Your task to perform on an android device: turn on location history Image 0: 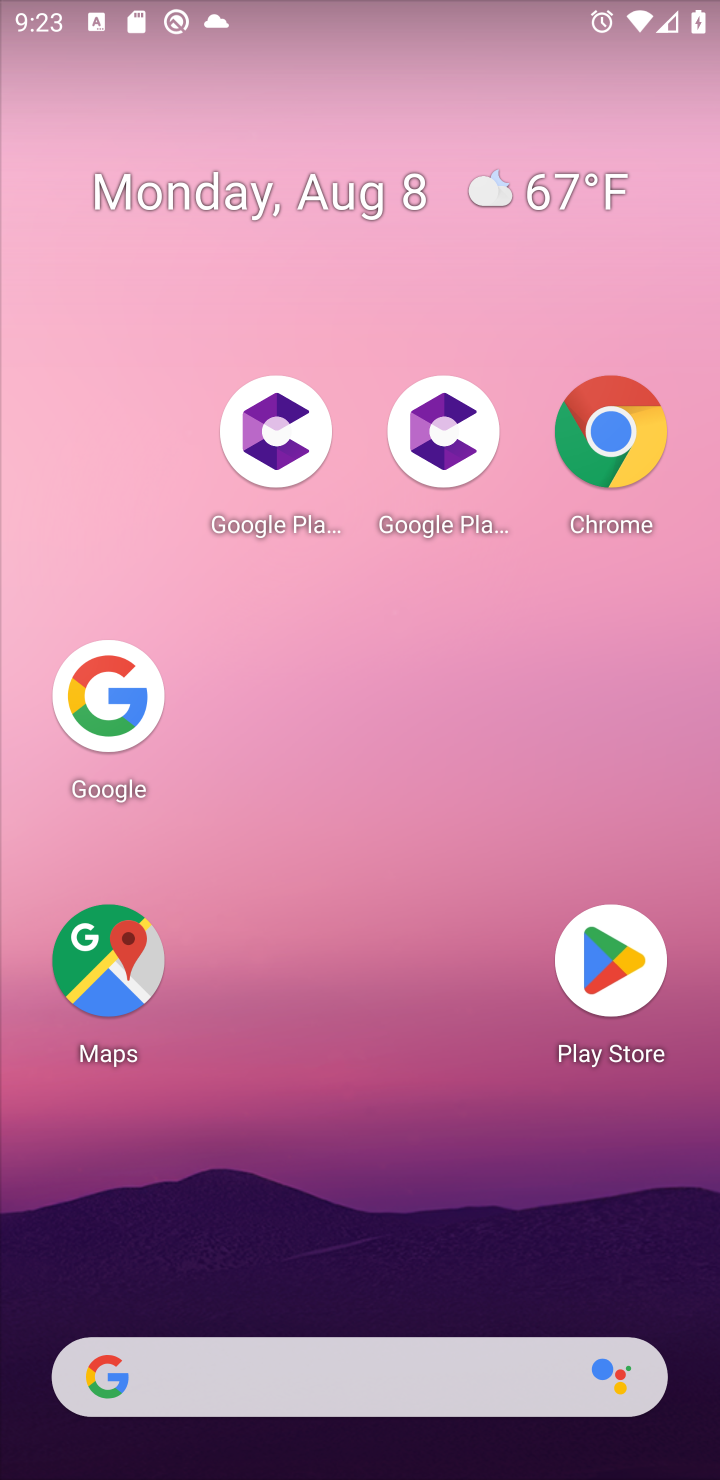
Step 0: drag from (405, 804) to (394, 401)
Your task to perform on an android device: turn on location history Image 1: 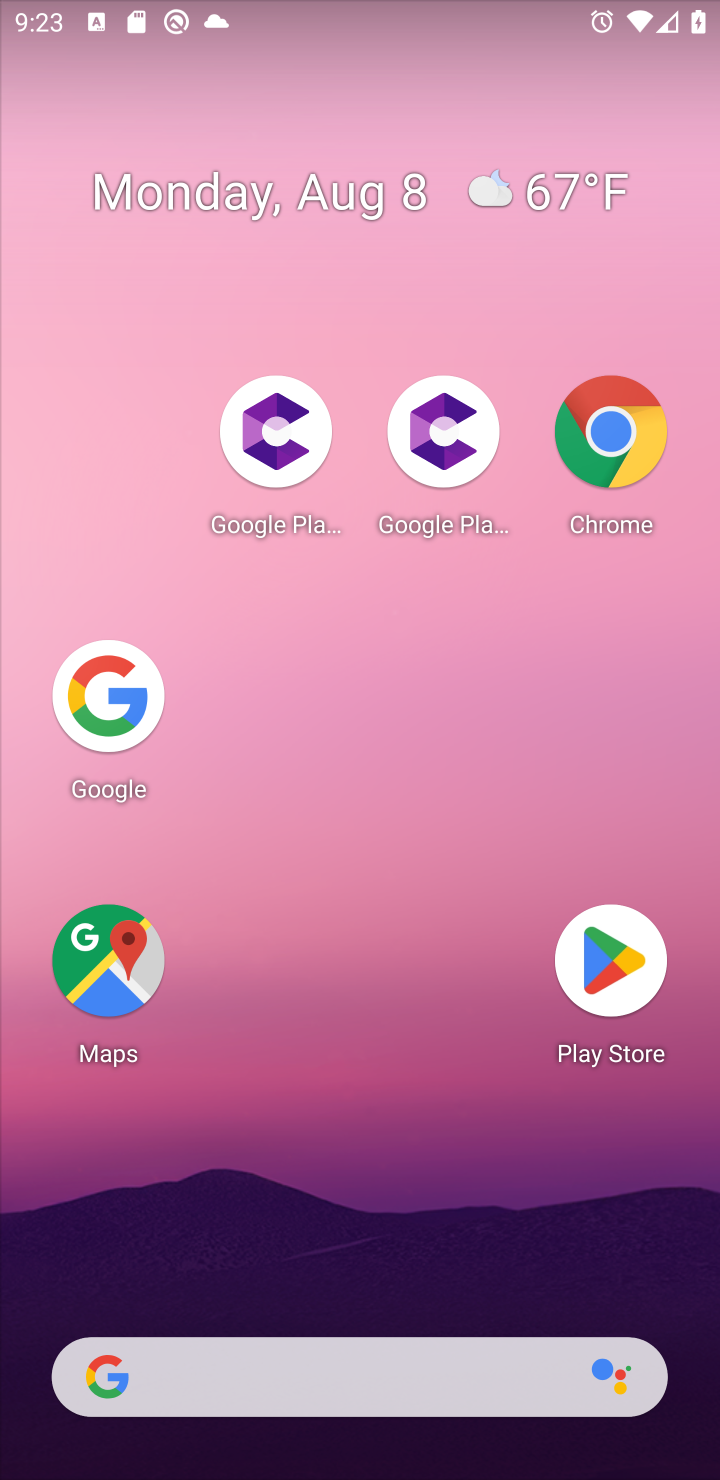
Step 1: drag from (384, 1293) to (260, 281)
Your task to perform on an android device: turn on location history Image 2: 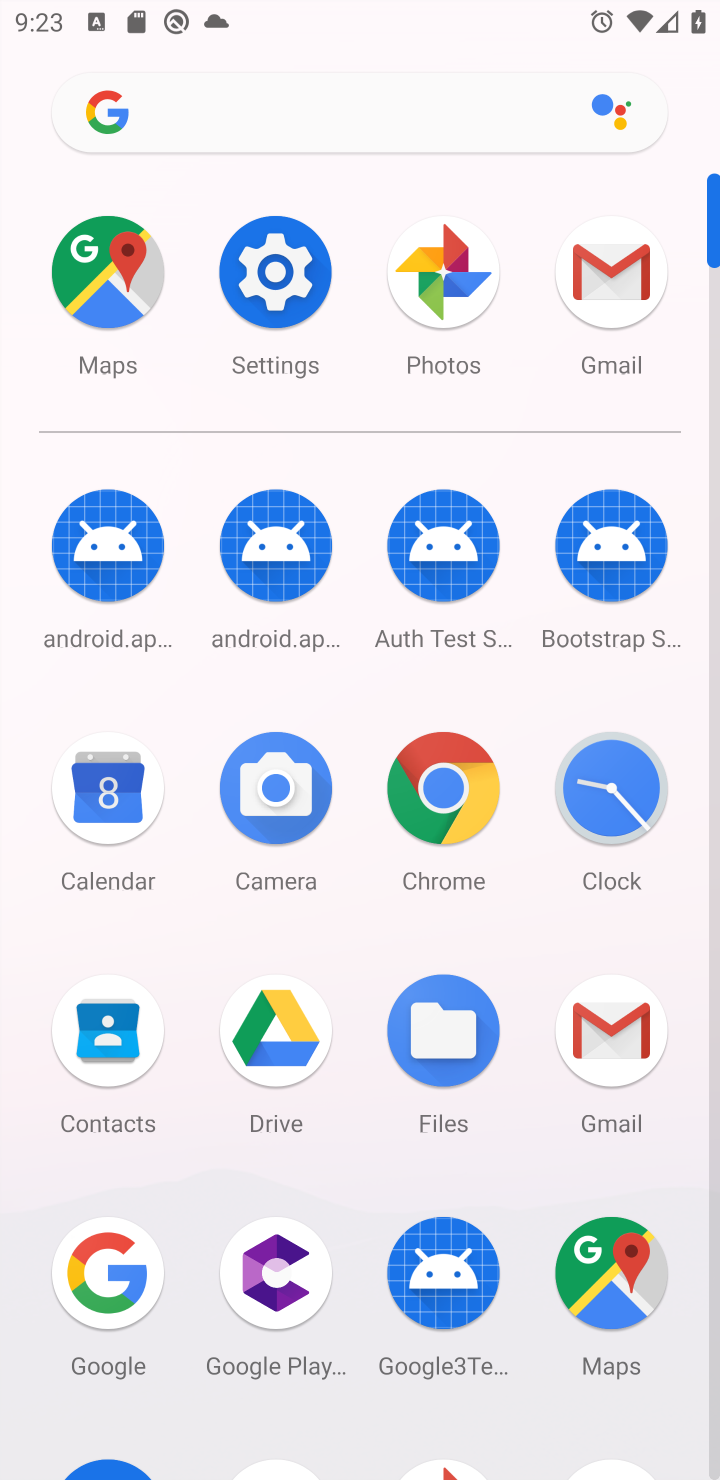
Step 2: click (260, 281)
Your task to perform on an android device: turn on location history Image 3: 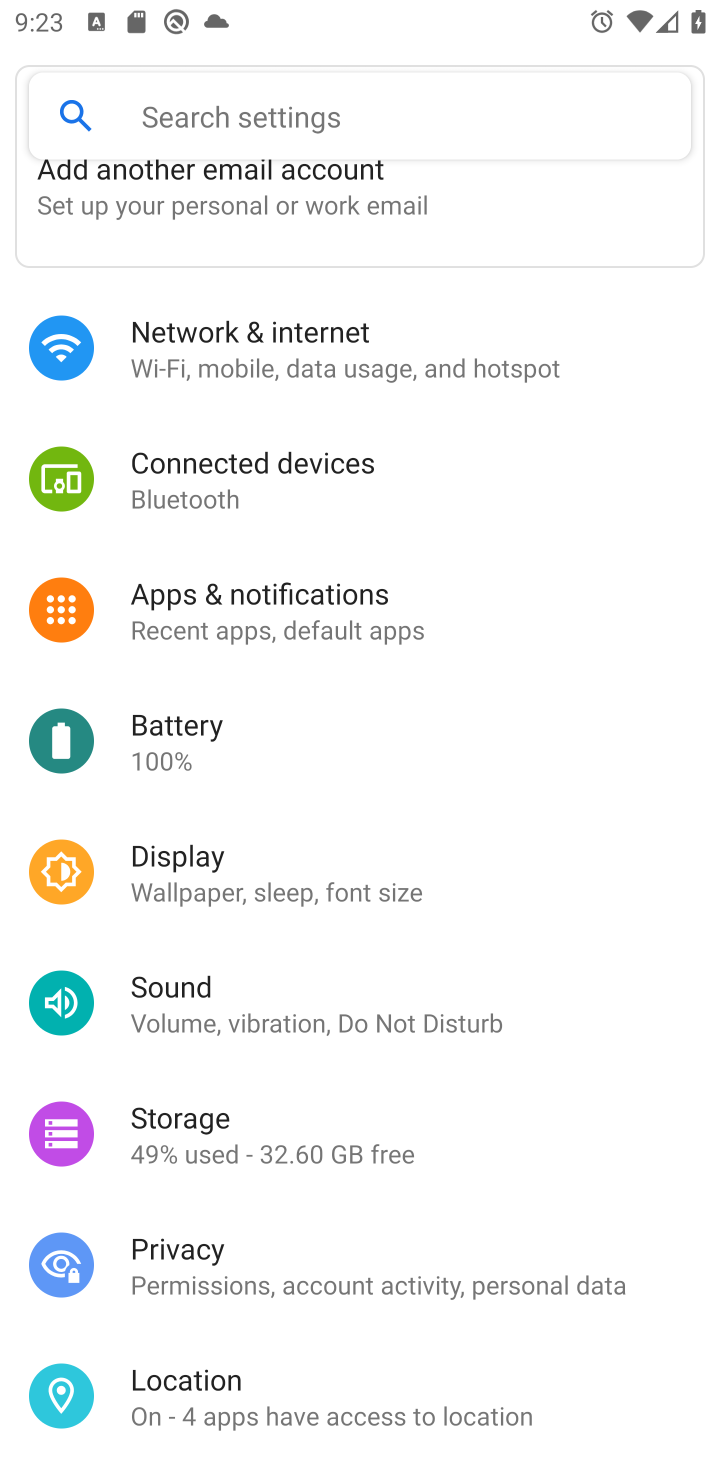
Step 3: click (208, 1395)
Your task to perform on an android device: turn on location history Image 4: 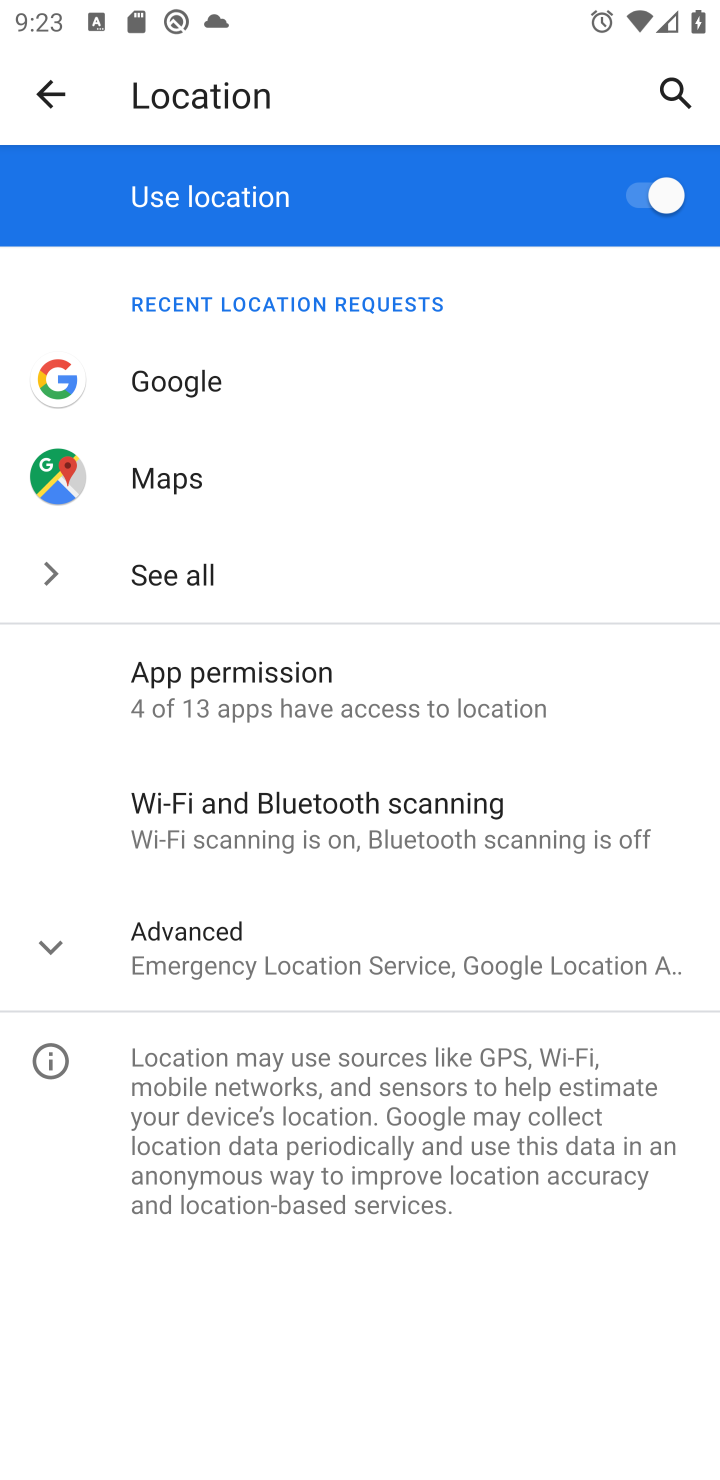
Step 4: click (197, 969)
Your task to perform on an android device: turn on location history Image 5: 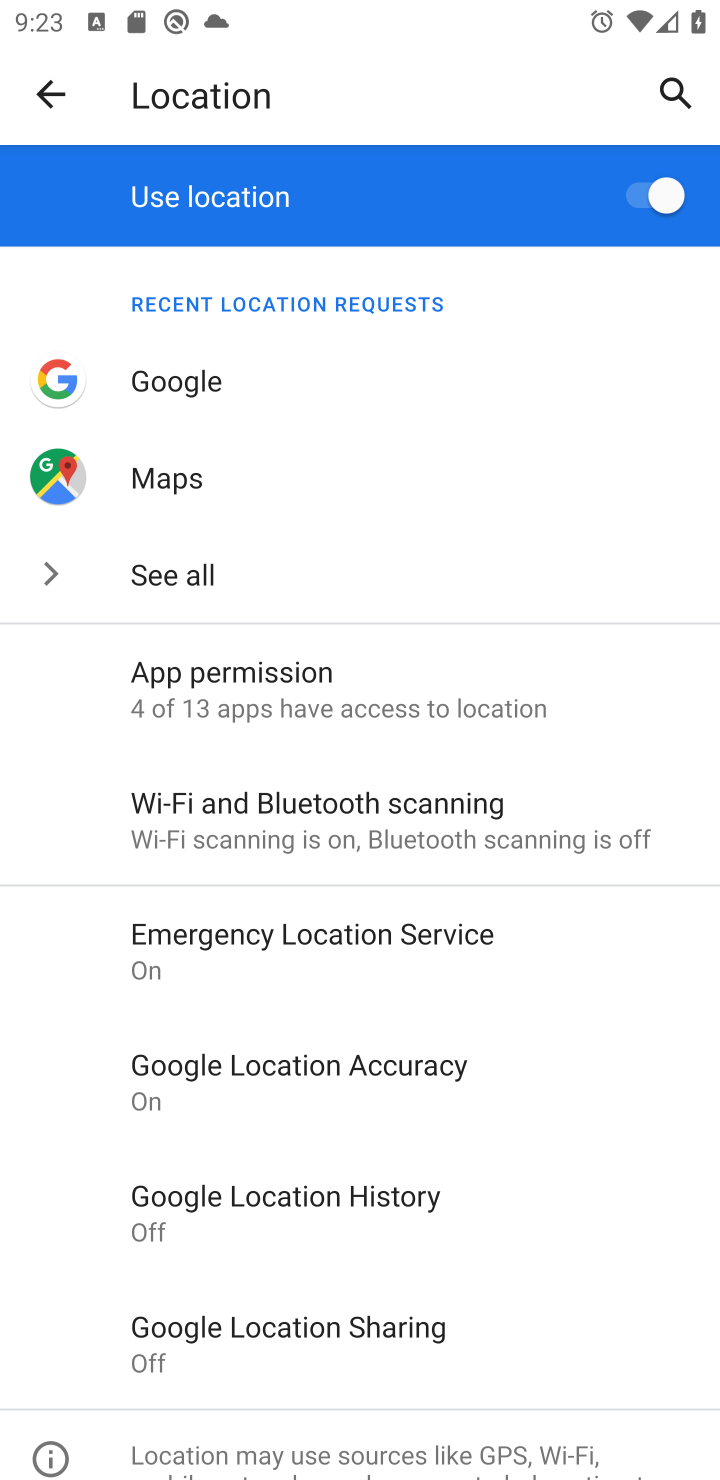
Step 5: click (306, 1175)
Your task to perform on an android device: turn on location history Image 6: 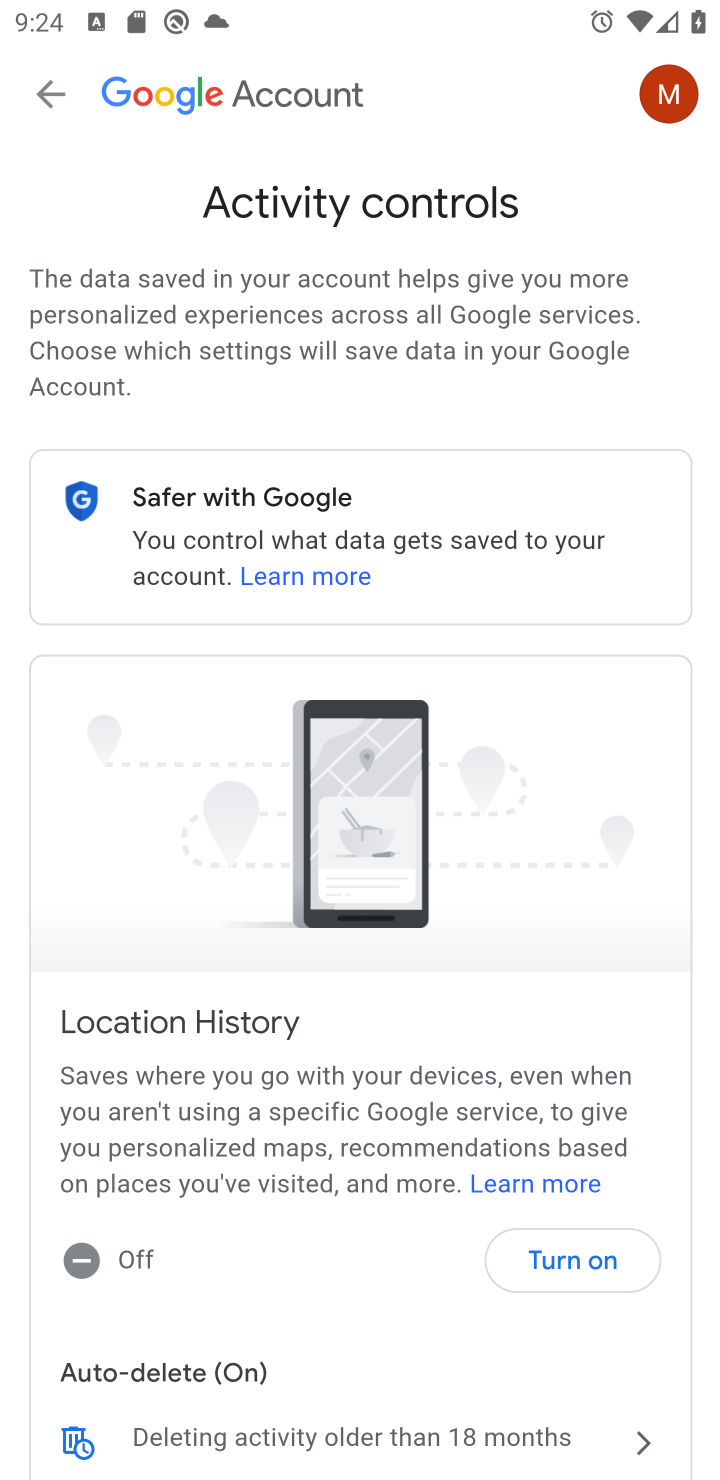
Step 6: click (577, 1237)
Your task to perform on an android device: turn on location history Image 7: 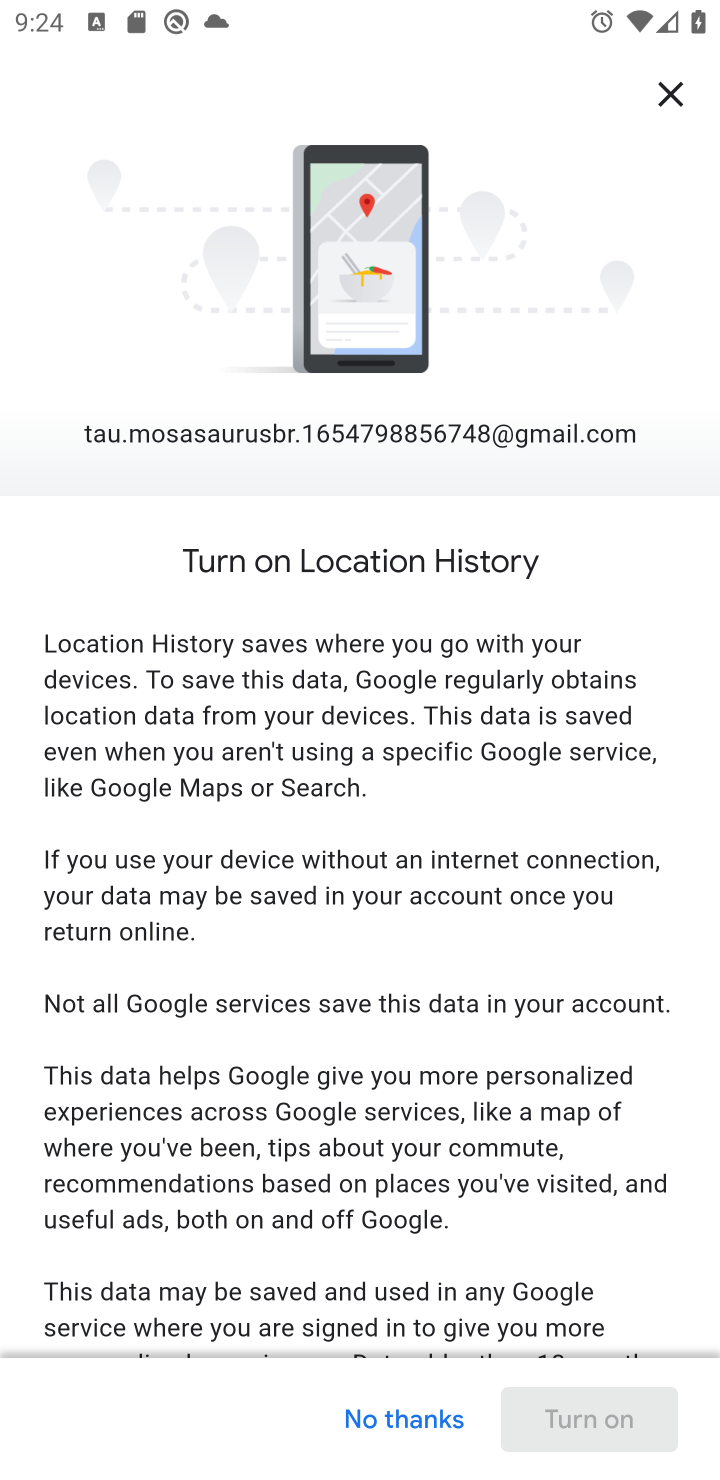
Step 7: drag from (577, 1237) to (470, 420)
Your task to perform on an android device: turn on location history Image 8: 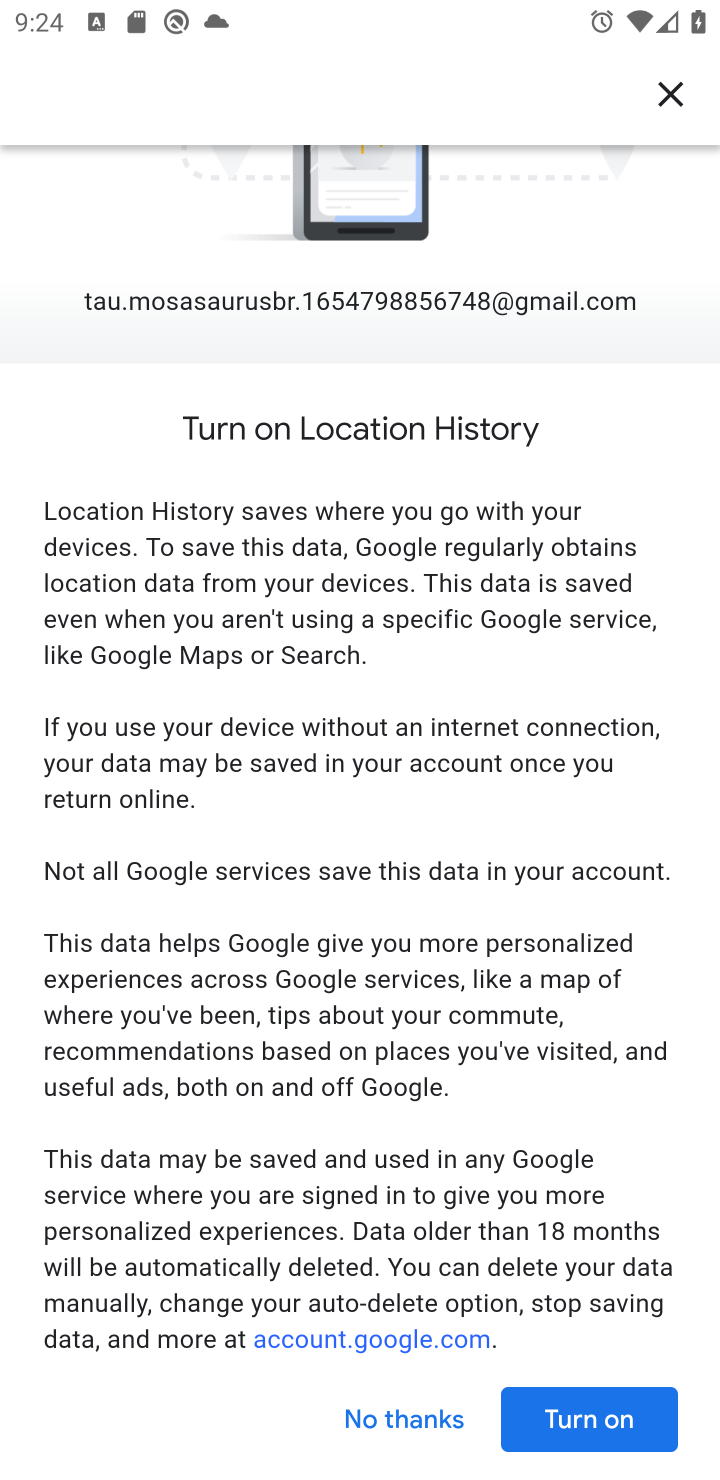
Step 8: drag from (508, 1261) to (387, 471)
Your task to perform on an android device: turn on location history Image 9: 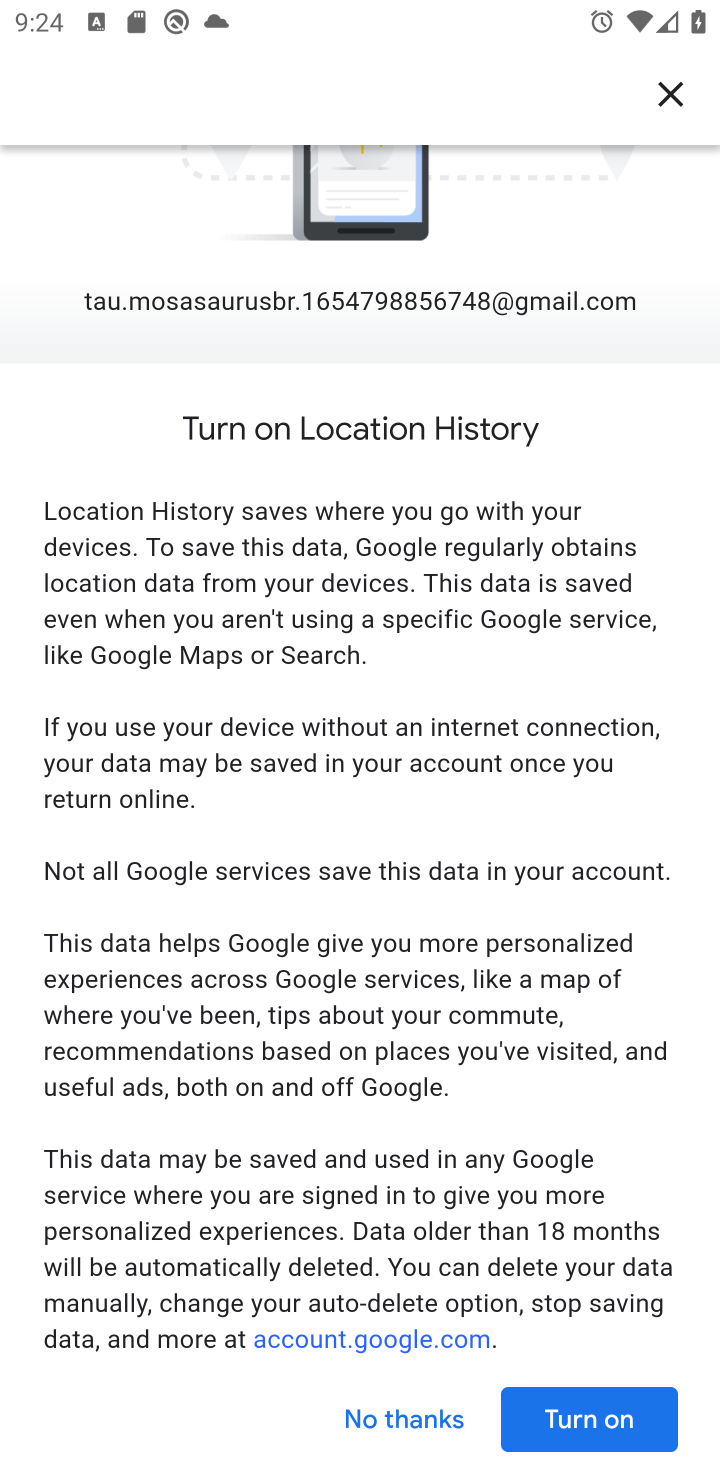
Step 9: click (591, 1430)
Your task to perform on an android device: turn on location history Image 10: 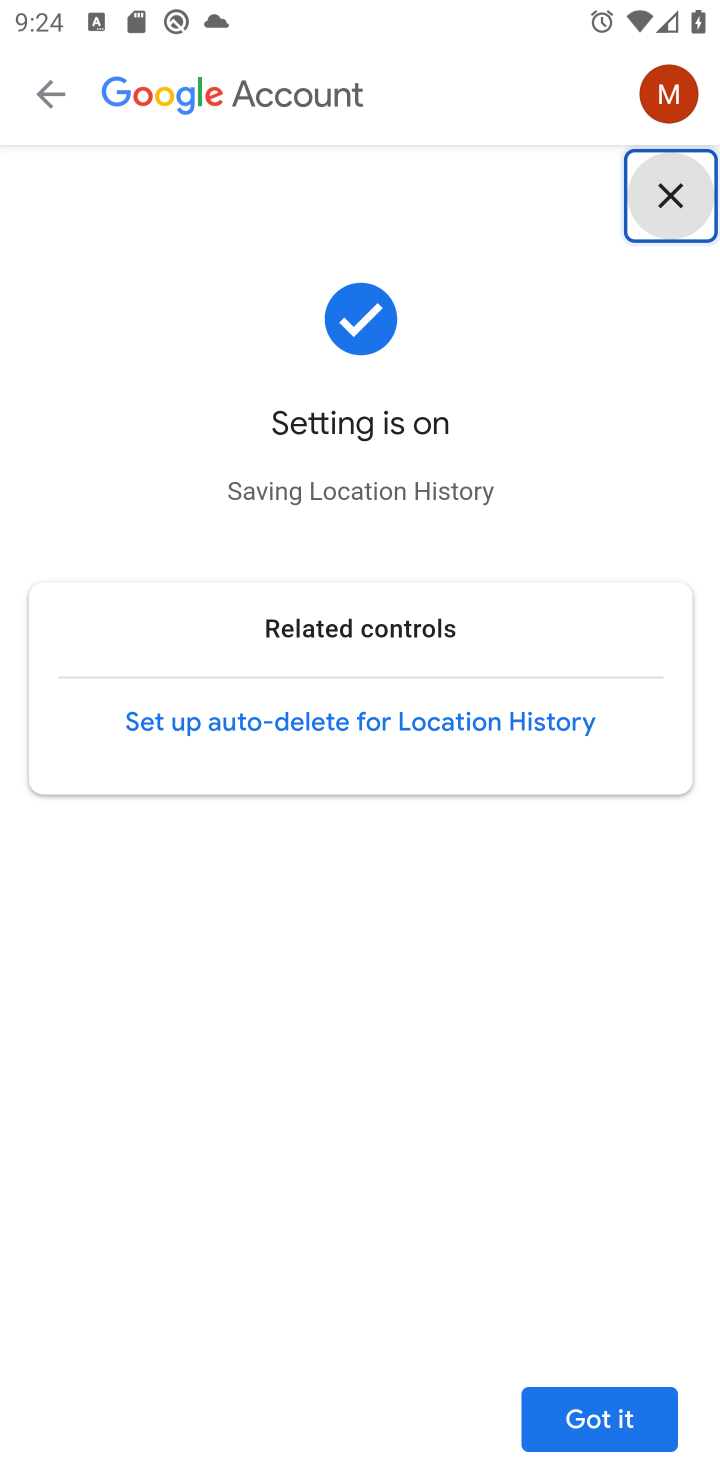
Step 10: task complete